Your task to perform on an android device: Go to calendar. Show me events next week Image 0: 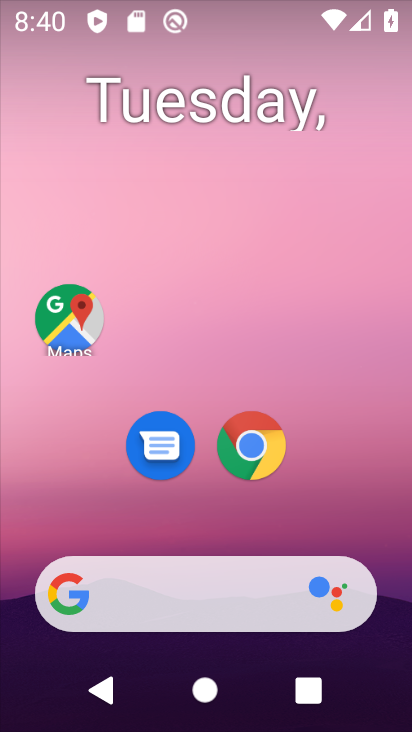
Step 0: drag from (52, 561) to (291, 121)
Your task to perform on an android device: Go to calendar. Show me events next week Image 1: 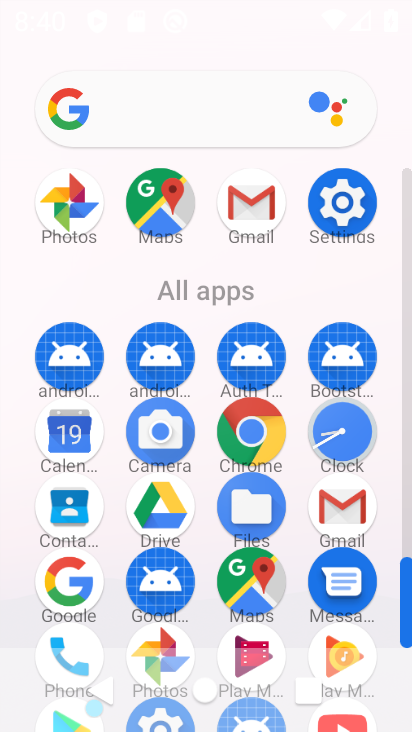
Step 1: click (89, 440)
Your task to perform on an android device: Go to calendar. Show me events next week Image 2: 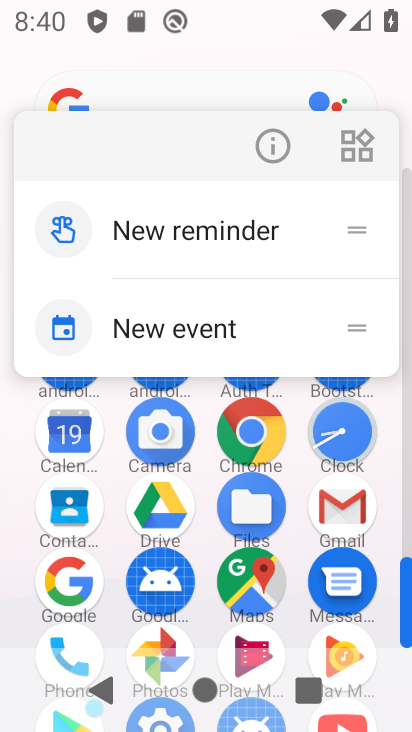
Step 2: click (80, 429)
Your task to perform on an android device: Go to calendar. Show me events next week Image 3: 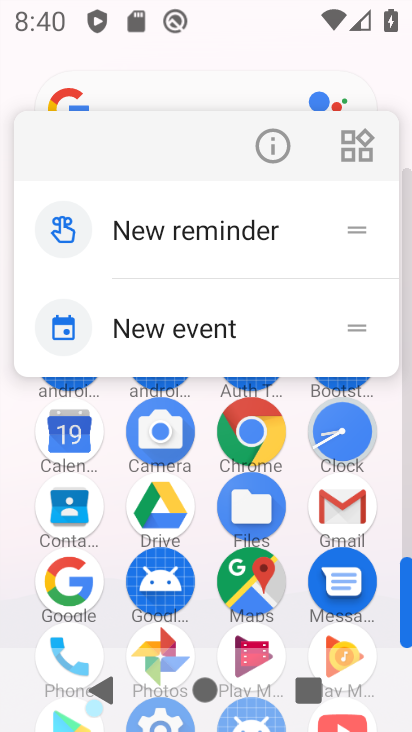
Step 3: click (62, 440)
Your task to perform on an android device: Go to calendar. Show me events next week Image 4: 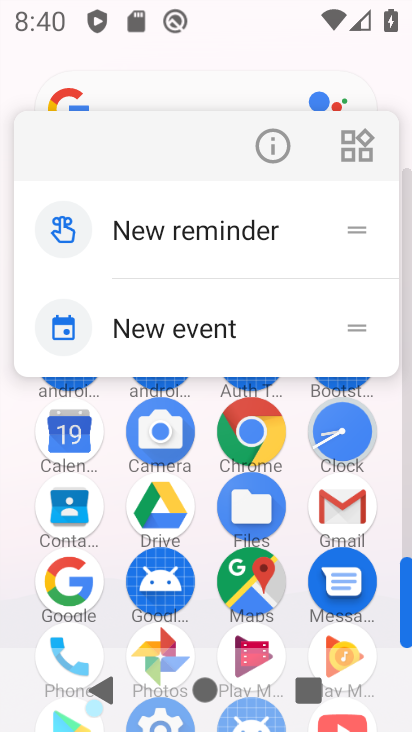
Step 4: click (59, 429)
Your task to perform on an android device: Go to calendar. Show me events next week Image 5: 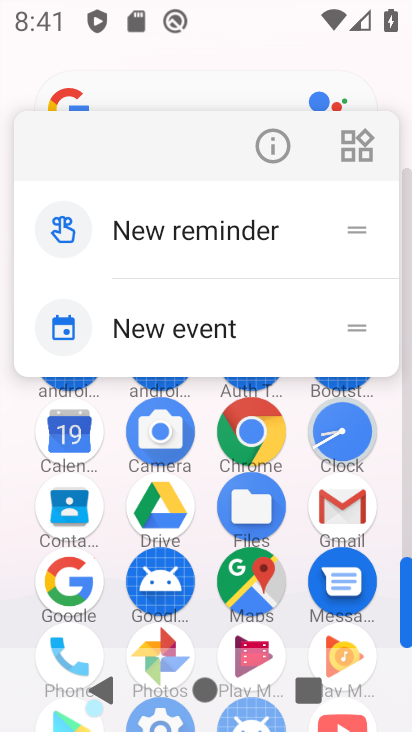
Step 5: click (74, 405)
Your task to perform on an android device: Go to calendar. Show me events next week Image 6: 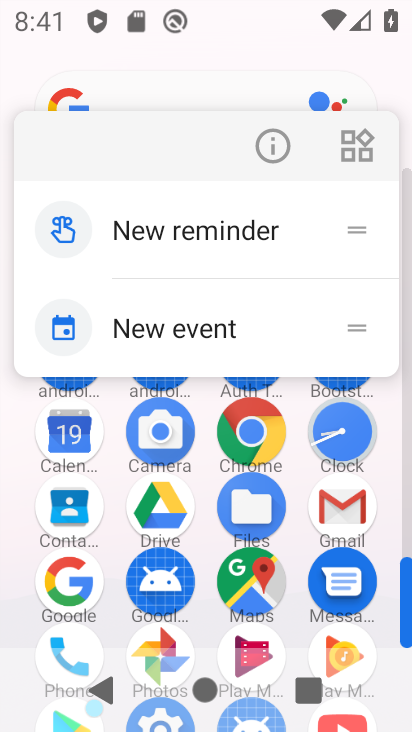
Step 6: click (63, 422)
Your task to perform on an android device: Go to calendar. Show me events next week Image 7: 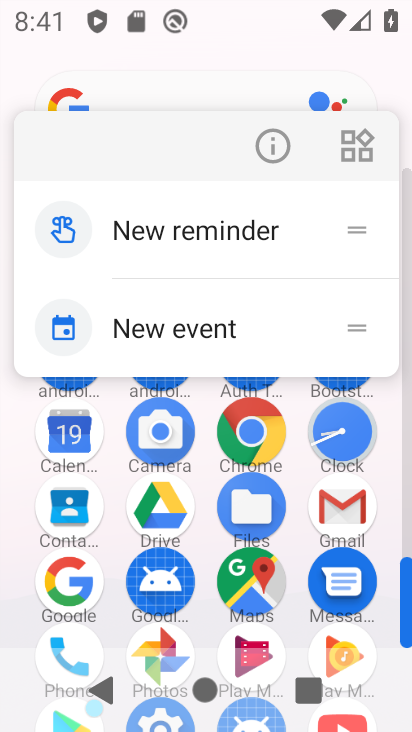
Step 7: click (57, 439)
Your task to perform on an android device: Go to calendar. Show me events next week Image 8: 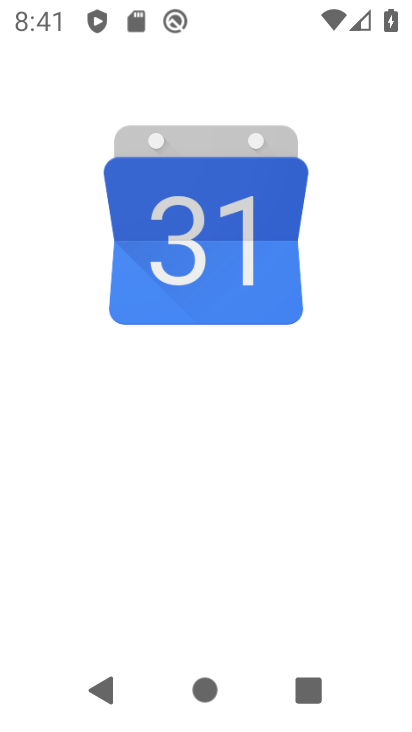
Step 8: press back button
Your task to perform on an android device: Go to calendar. Show me events next week Image 9: 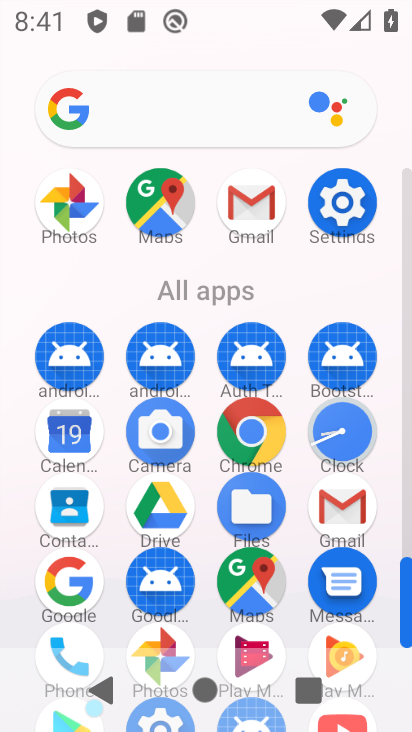
Step 9: click (70, 432)
Your task to perform on an android device: Go to calendar. Show me events next week Image 10: 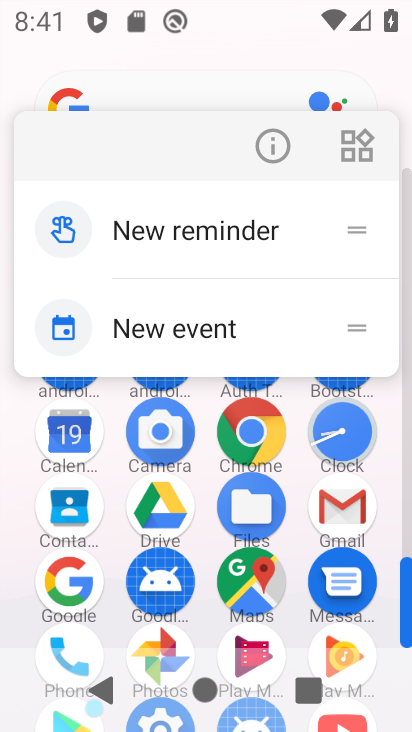
Step 10: click (70, 432)
Your task to perform on an android device: Go to calendar. Show me events next week Image 11: 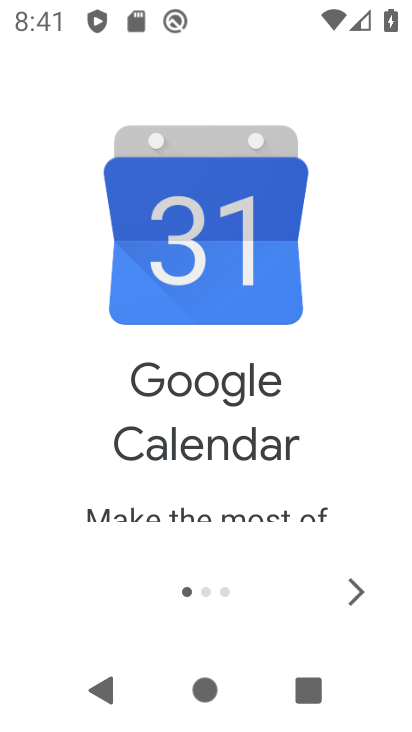
Step 11: click (355, 580)
Your task to perform on an android device: Go to calendar. Show me events next week Image 12: 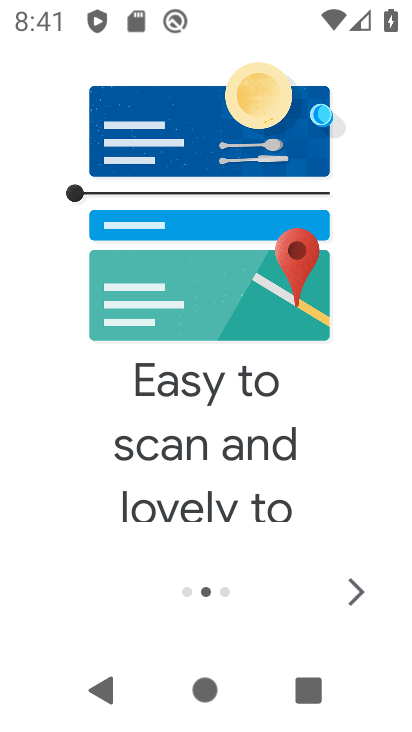
Step 12: click (354, 580)
Your task to perform on an android device: Go to calendar. Show me events next week Image 13: 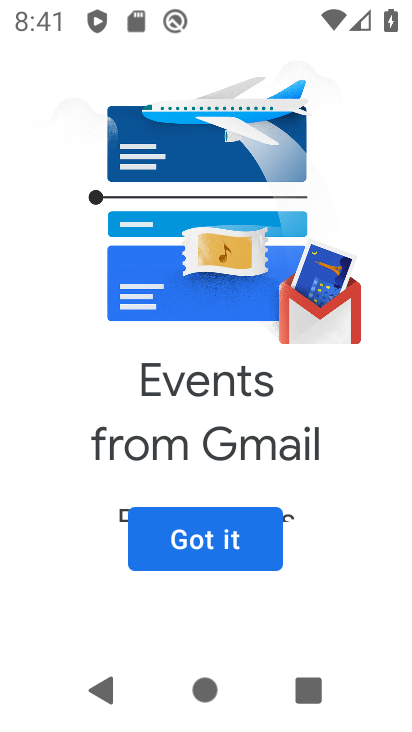
Step 13: click (218, 529)
Your task to perform on an android device: Go to calendar. Show me events next week Image 14: 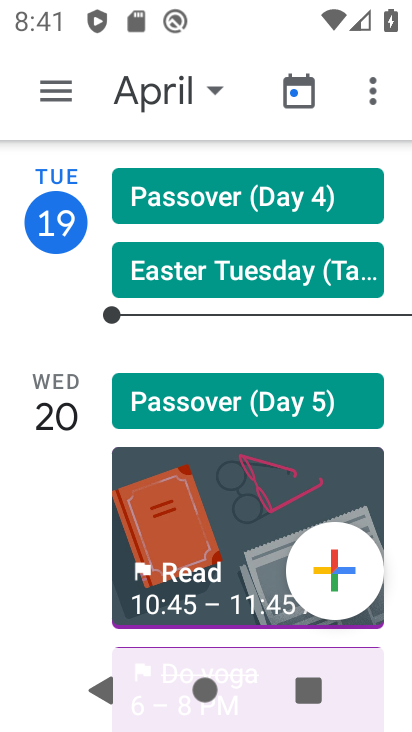
Step 14: click (187, 82)
Your task to perform on an android device: Go to calendar. Show me events next week Image 15: 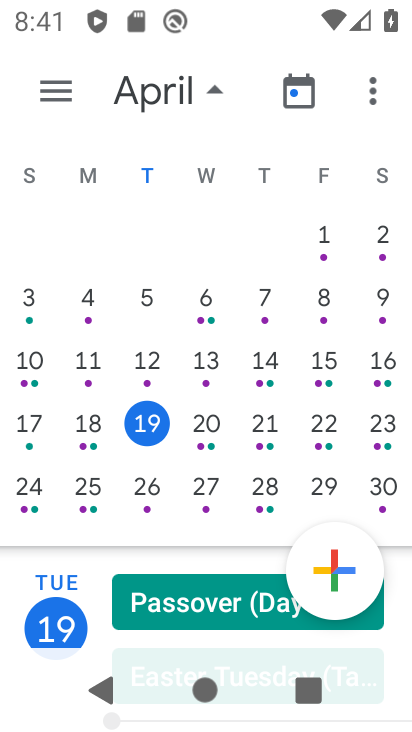
Step 15: click (207, 410)
Your task to perform on an android device: Go to calendar. Show me events next week Image 16: 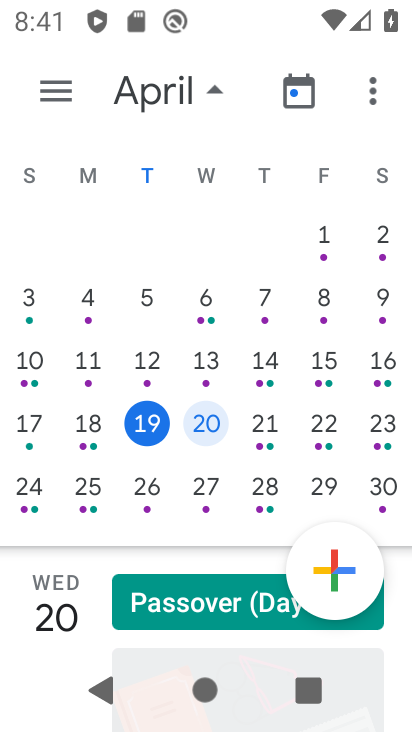
Step 16: click (269, 420)
Your task to perform on an android device: Go to calendar. Show me events next week Image 17: 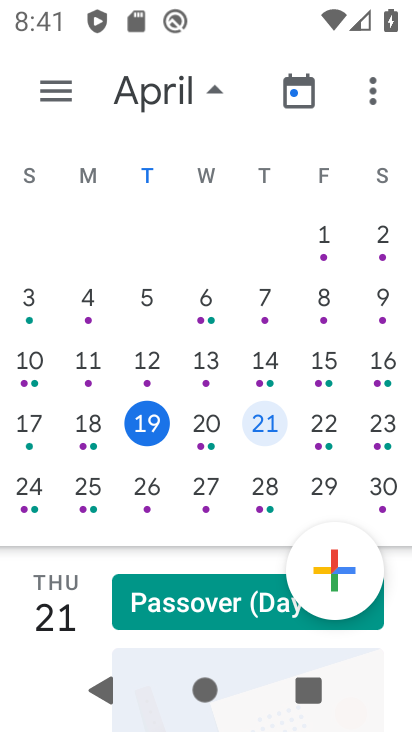
Step 17: click (313, 421)
Your task to perform on an android device: Go to calendar. Show me events next week Image 18: 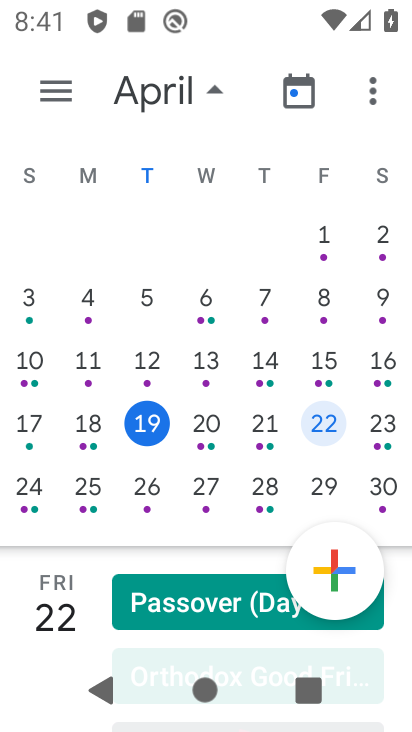
Step 18: click (35, 492)
Your task to perform on an android device: Go to calendar. Show me events next week Image 19: 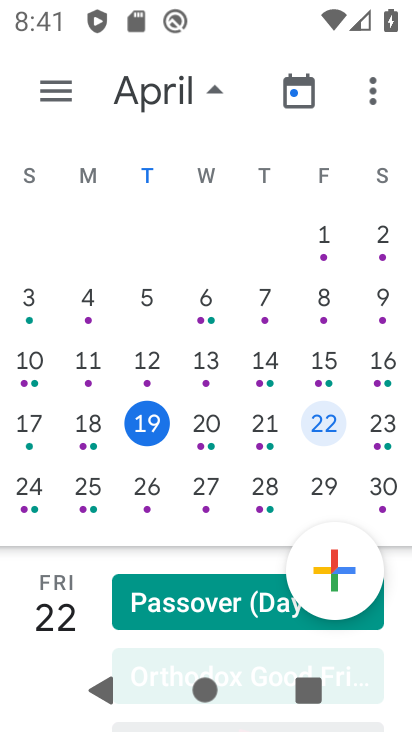
Step 19: click (93, 483)
Your task to perform on an android device: Go to calendar. Show me events next week Image 20: 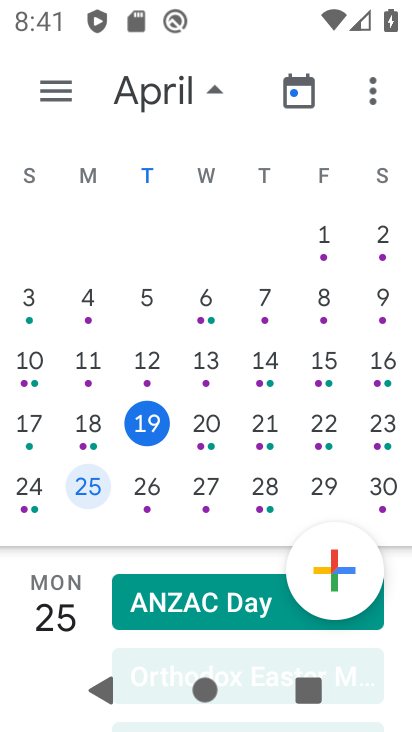
Step 20: click (136, 484)
Your task to perform on an android device: Go to calendar. Show me events next week Image 21: 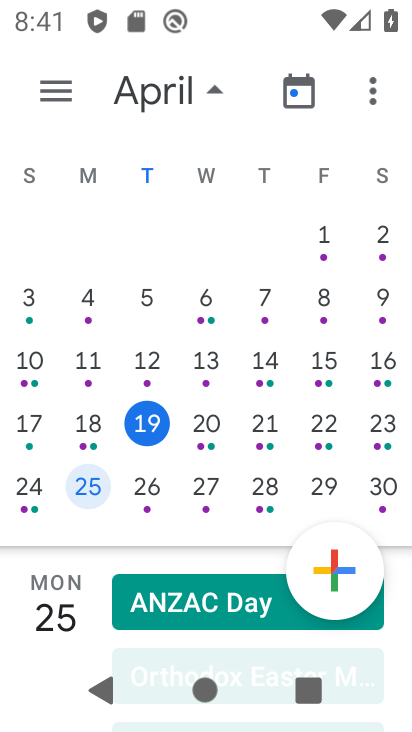
Step 21: click (205, 481)
Your task to perform on an android device: Go to calendar. Show me events next week Image 22: 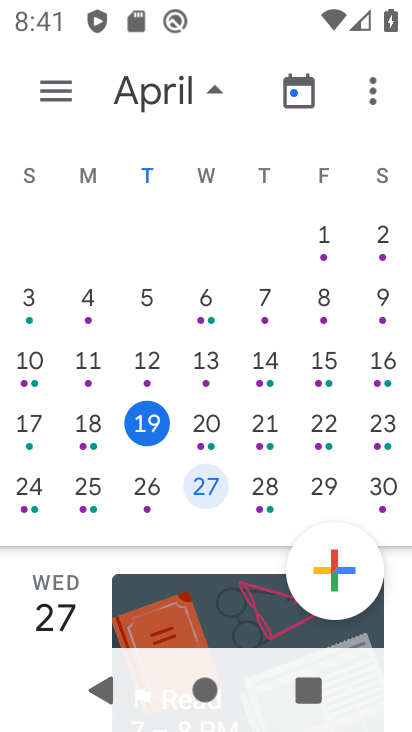
Step 22: click (148, 502)
Your task to perform on an android device: Go to calendar. Show me events next week Image 23: 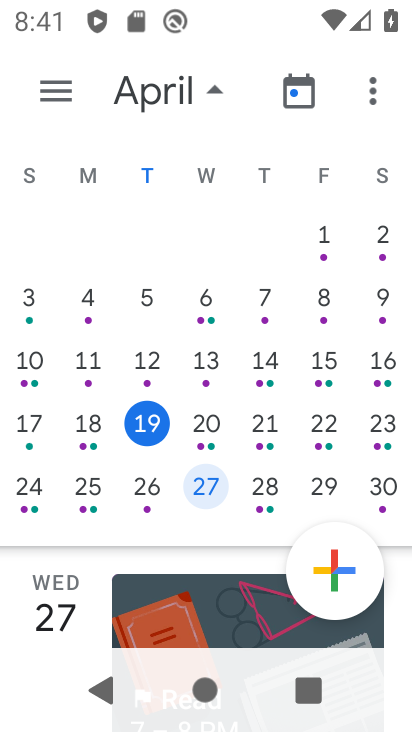
Step 23: click (148, 494)
Your task to perform on an android device: Go to calendar. Show me events next week Image 24: 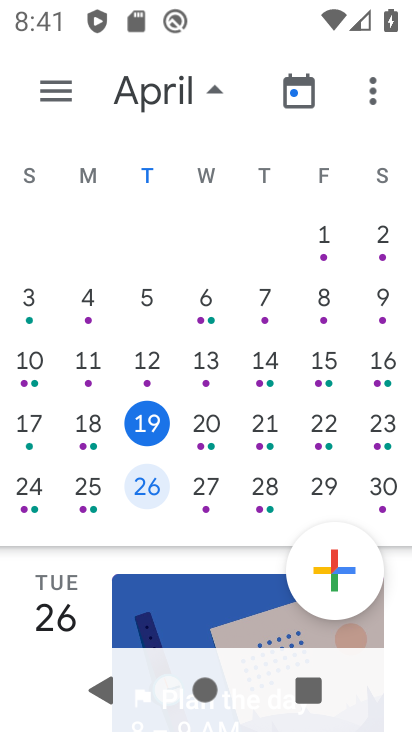
Step 24: task complete